Your task to perform on an android device: What's the weather going to be tomorrow? Image 0: 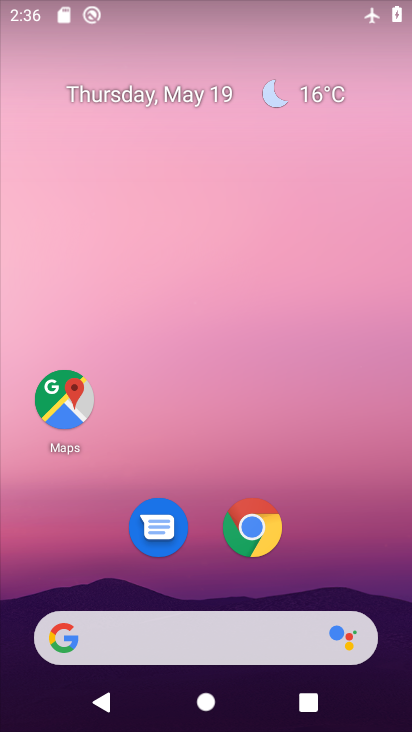
Step 0: click (311, 78)
Your task to perform on an android device: What's the weather going to be tomorrow? Image 1: 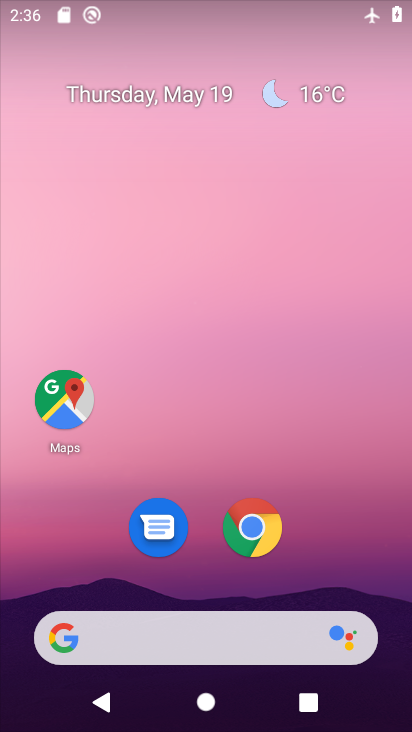
Step 1: click (303, 83)
Your task to perform on an android device: What's the weather going to be tomorrow? Image 2: 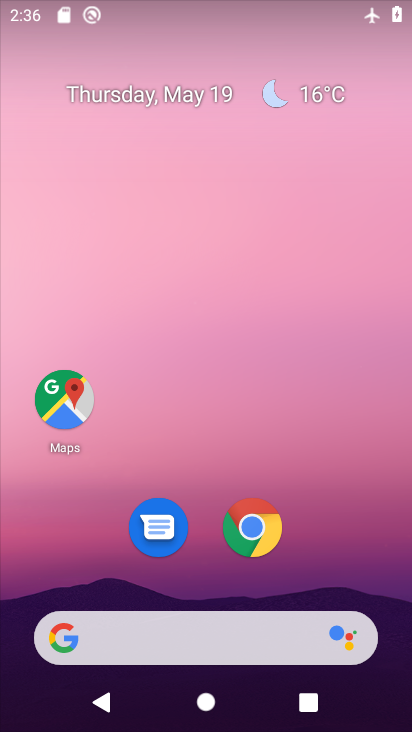
Step 2: click (314, 94)
Your task to perform on an android device: What's the weather going to be tomorrow? Image 3: 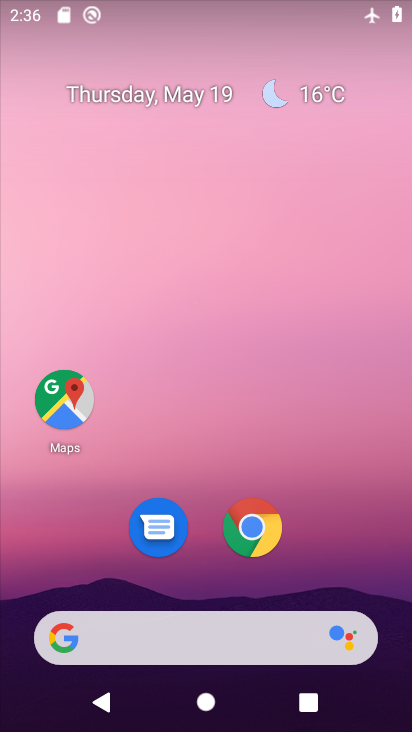
Step 3: click (323, 94)
Your task to perform on an android device: What's the weather going to be tomorrow? Image 4: 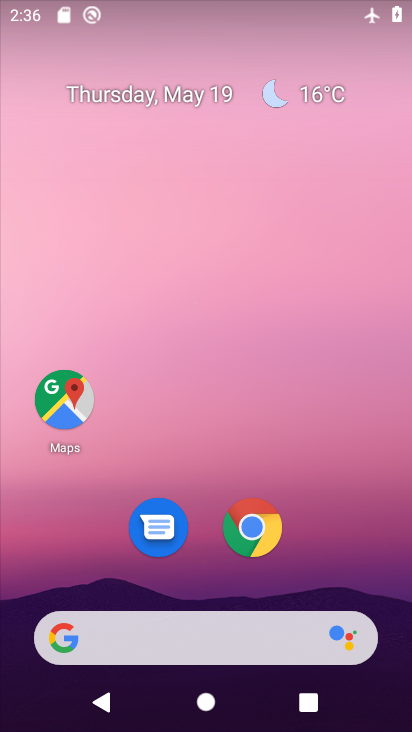
Step 4: drag from (354, 560) to (208, 13)
Your task to perform on an android device: What's the weather going to be tomorrow? Image 5: 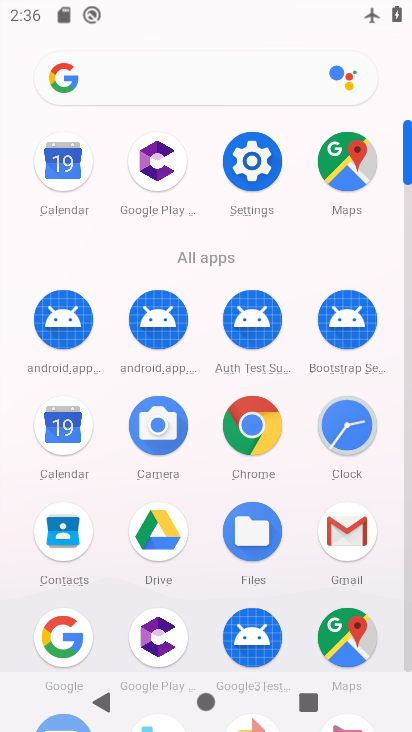
Step 5: click (61, 633)
Your task to perform on an android device: What's the weather going to be tomorrow? Image 6: 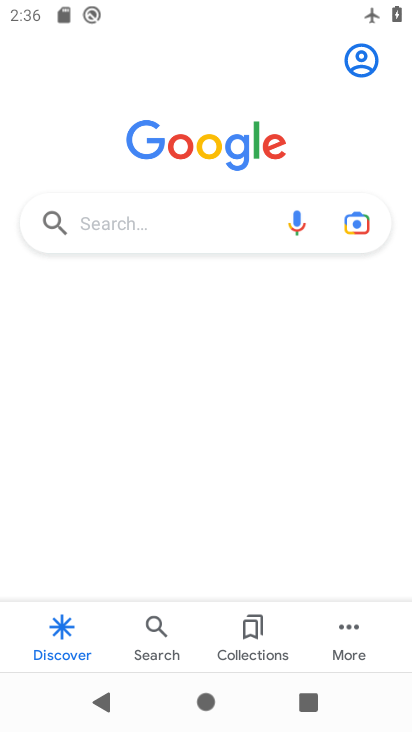
Step 6: click (151, 233)
Your task to perform on an android device: What's the weather going to be tomorrow? Image 7: 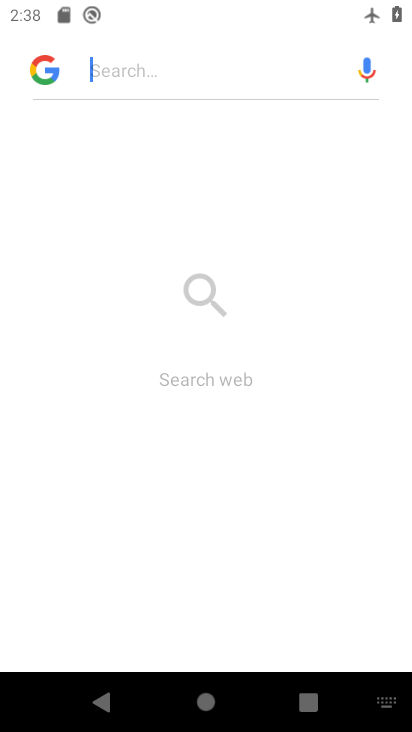
Step 7: task complete